Your task to perform on an android device: What's on my calendar today? Image 0: 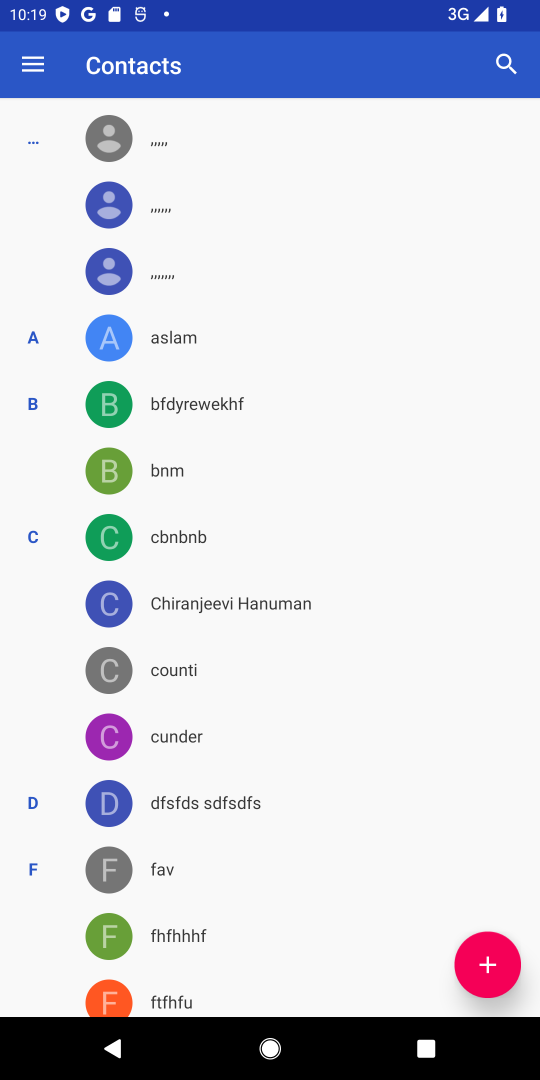
Step 0: press home button
Your task to perform on an android device: What's on my calendar today? Image 1: 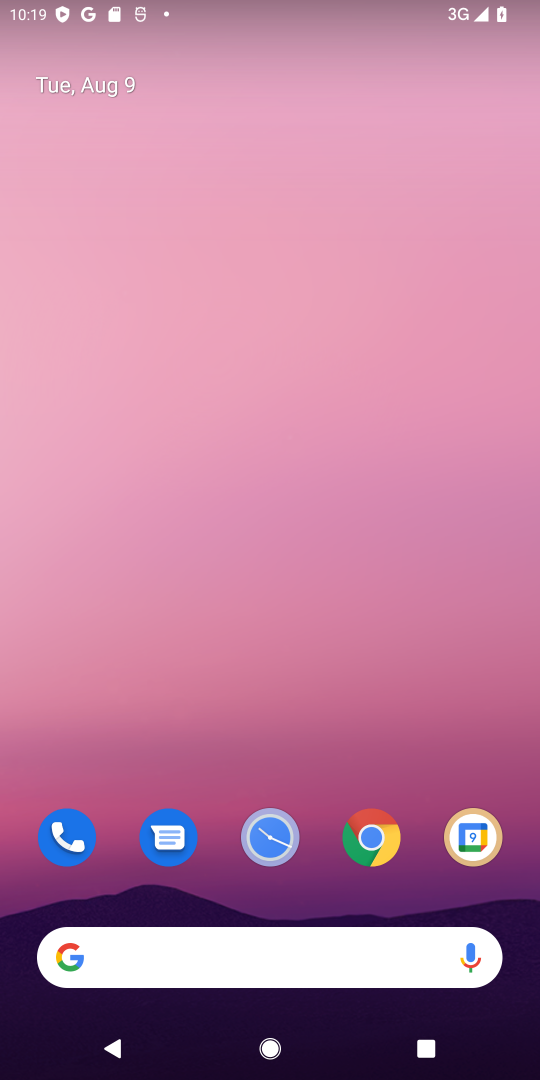
Step 1: drag from (307, 675) to (307, 25)
Your task to perform on an android device: What's on my calendar today? Image 2: 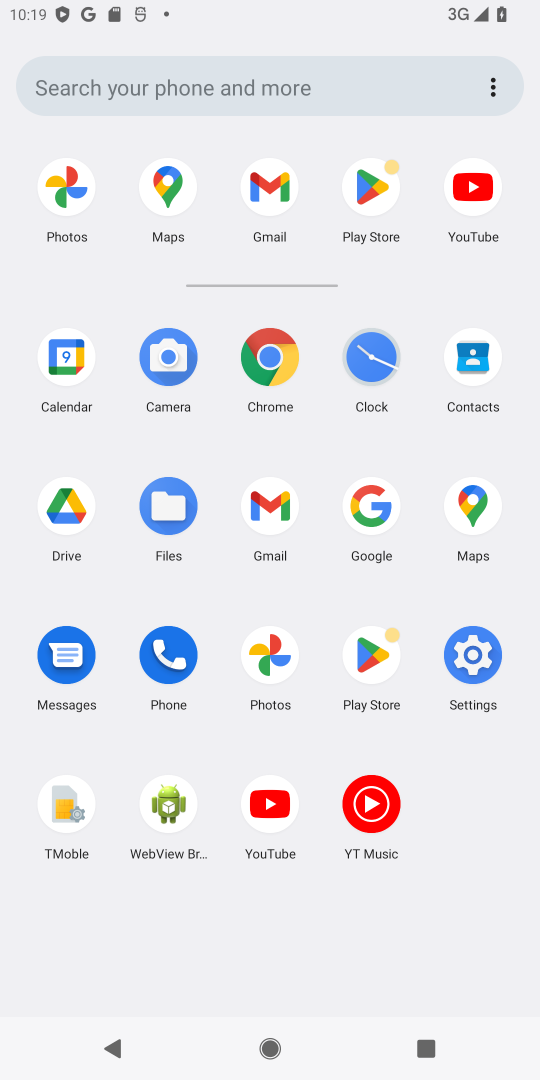
Step 2: click (61, 354)
Your task to perform on an android device: What's on my calendar today? Image 3: 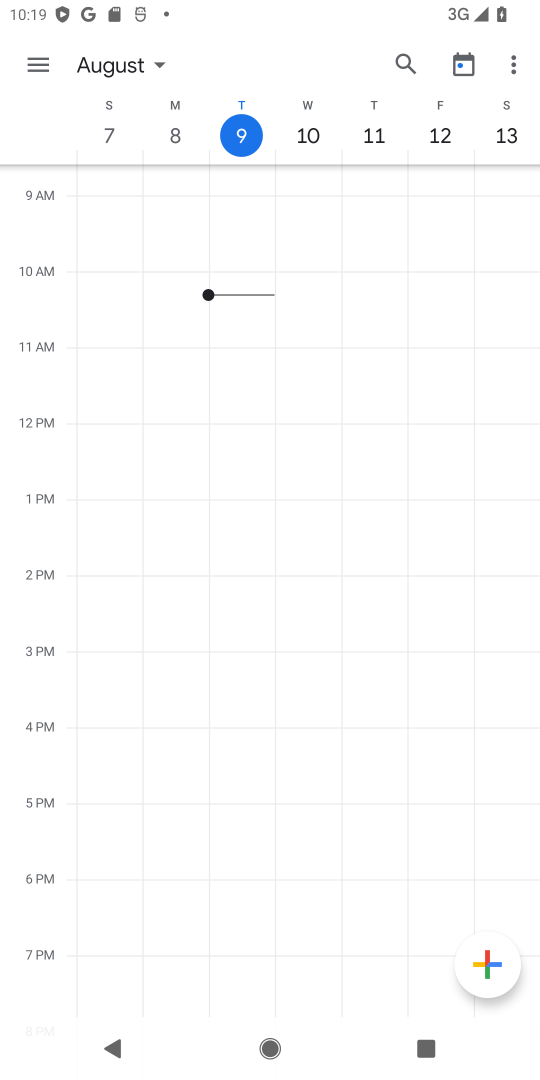
Step 3: click (240, 143)
Your task to perform on an android device: What's on my calendar today? Image 4: 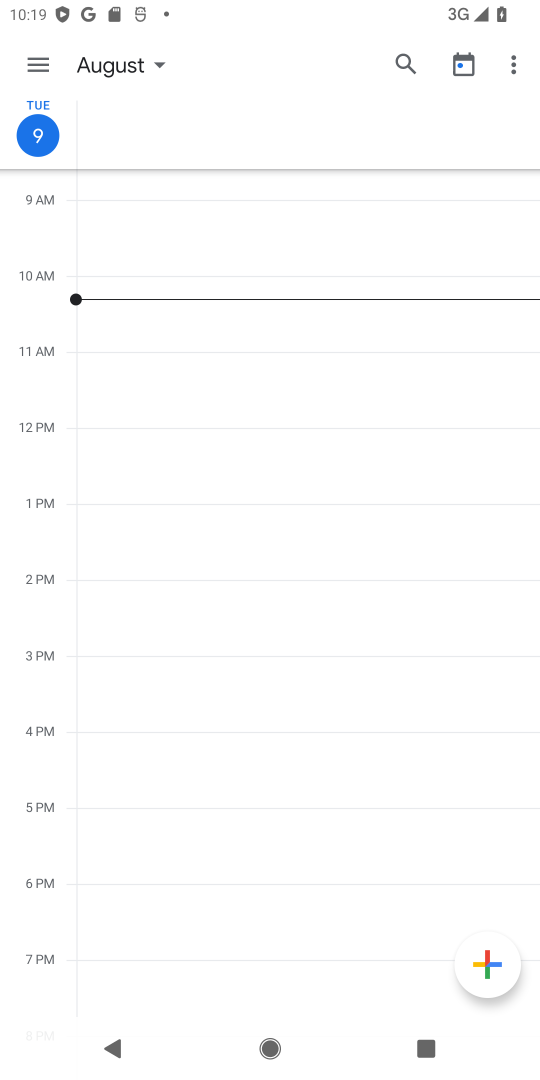
Step 4: task complete